Your task to perform on an android device: turn on priority inbox in the gmail app Image 0: 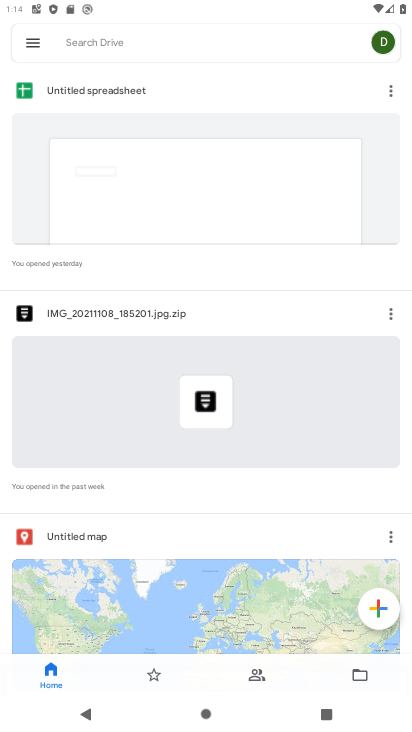
Step 0: press home button
Your task to perform on an android device: turn on priority inbox in the gmail app Image 1: 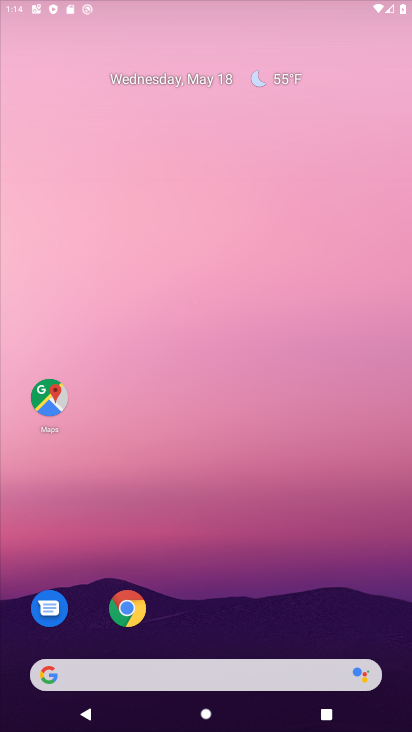
Step 1: drag from (296, 595) to (295, 118)
Your task to perform on an android device: turn on priority inbox in the gmail app Image 2: 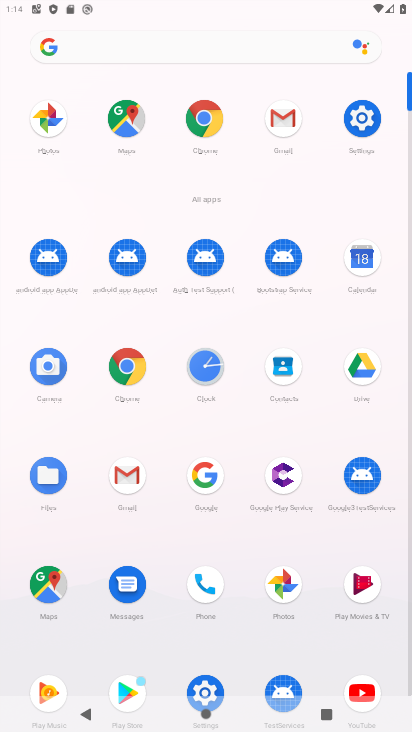
Step 2: click (299, 126)
Your task to perform on an android device: turn on priority inbox in the gmail app Image 3: 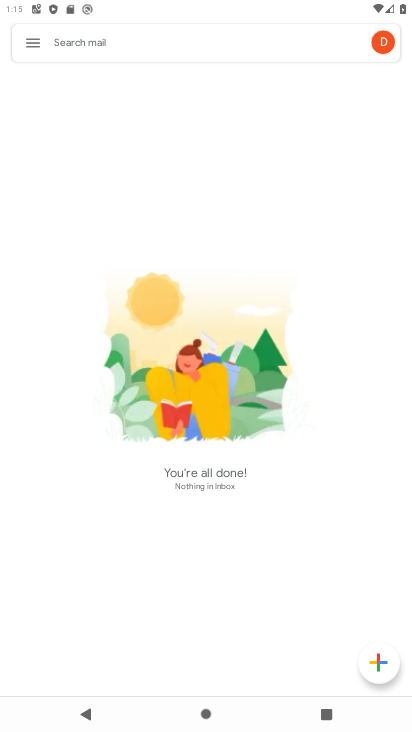
Step 3: click (41, 34)
Your task to perform on an android device: turn on priority inbox in the gmail app Image 4: 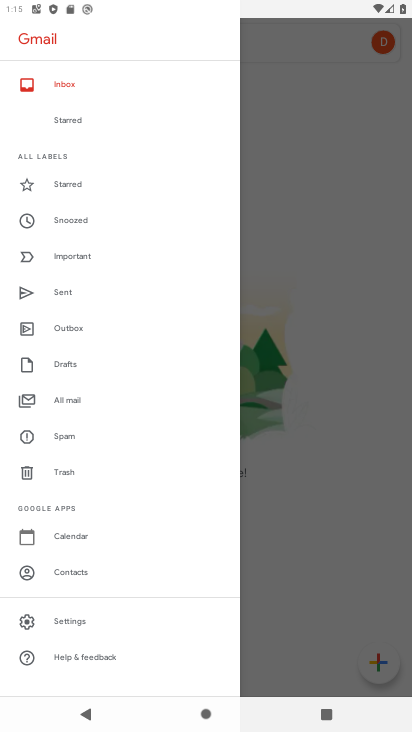
Step 4: drag from (93, 633) to (195, 331)
Your task to perform on an android device: turn on priority inbox in the gmail app Image 5: 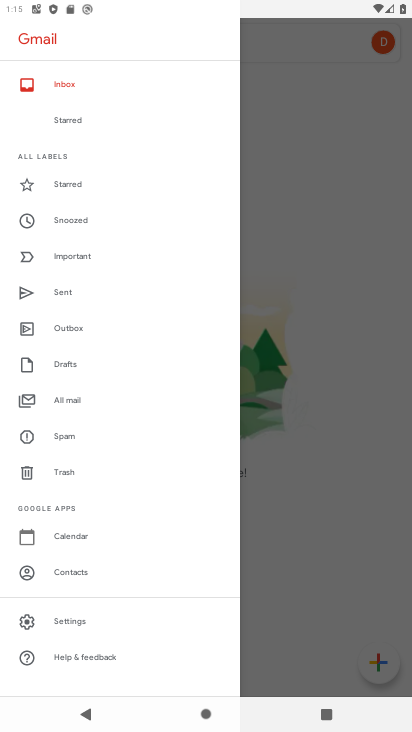
Step 5: click (79, 621)
Your task to perform on an android device: turn on priority inbox in the gmail app Image 6: 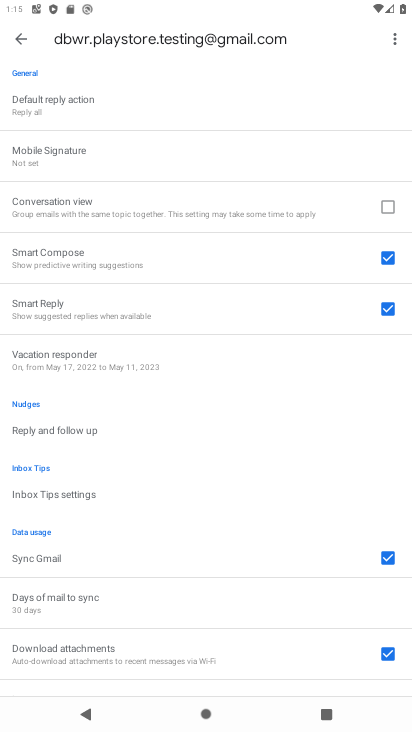
Step 6: drag from (187, 115) to (236, 505)
Your task to perform on an android device: turn on priority inbox in the gmail app Image 7: 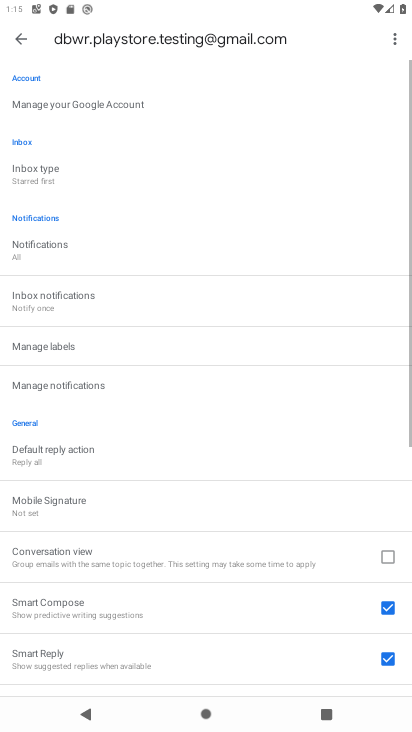
Step 7: drag from (99, 187) to (184, 527)
Your task to perform on an android device: turn on priority inbox in the gmail app Image 8: 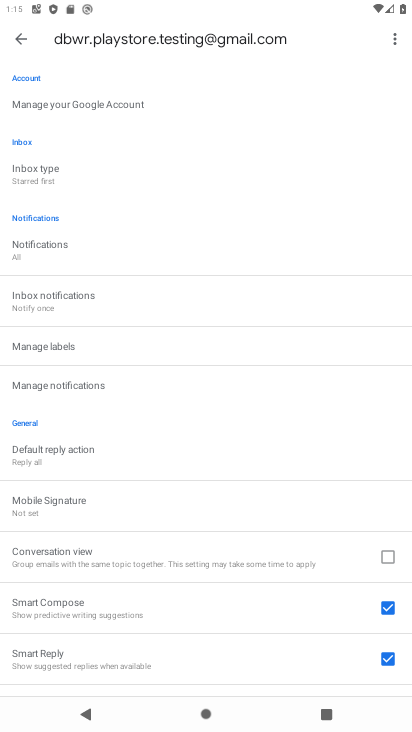
Step 8: click (52, 172)
Your task to perform on an android device: turn on priority inbox in the gmail app Image 9: 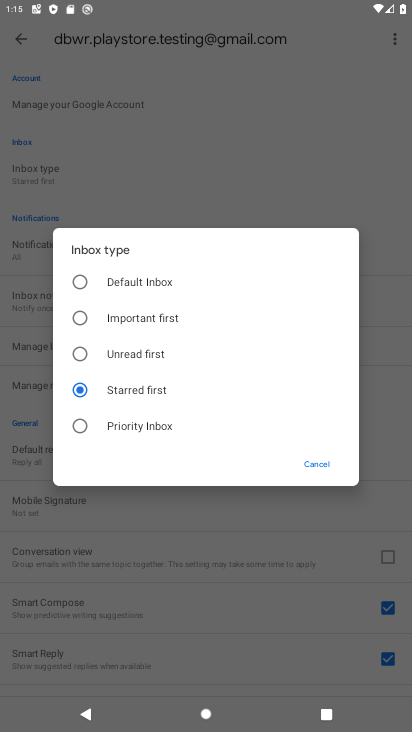
Step 9: task complete